Your task to perform on an android device: Is it going to rain today? Image 0: 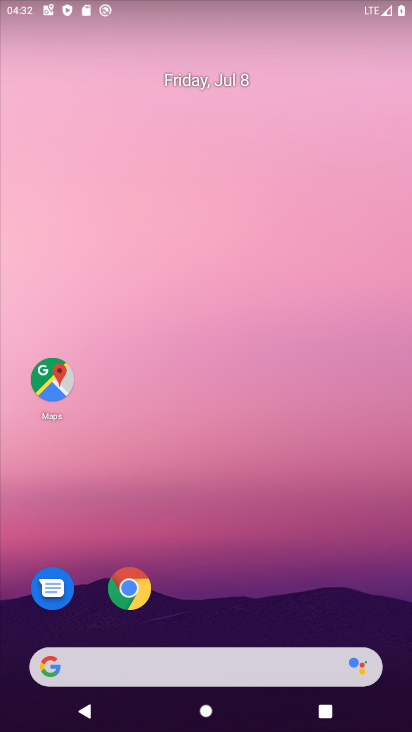
Step 0: drag from (213, 582) to (233, 202)
Your task to perform on an android device: Is it going to rain today? Image 1: 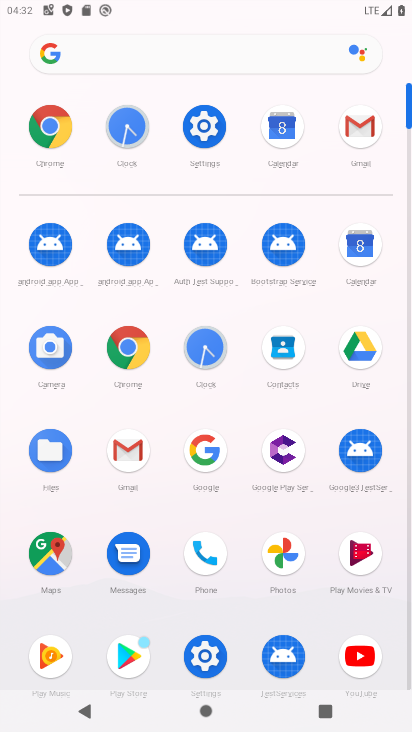
Step 1: click (207, 451)
Your task to perform on an android device: Is it going to rain today? Image 2: 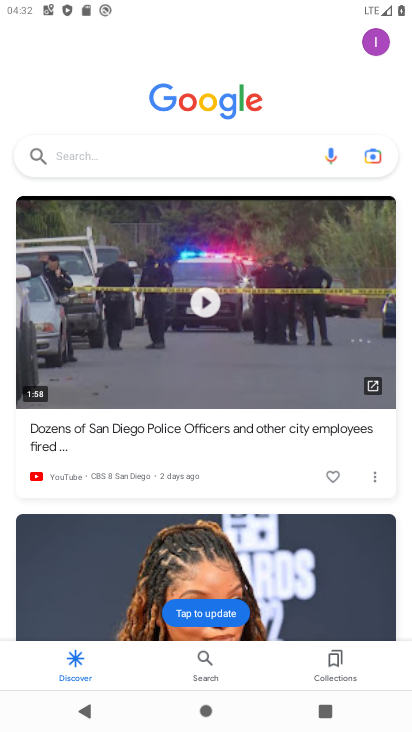
Step 2: click (214, 151)
Your task to perform on an android device: Is it going to rain today? Image 3: 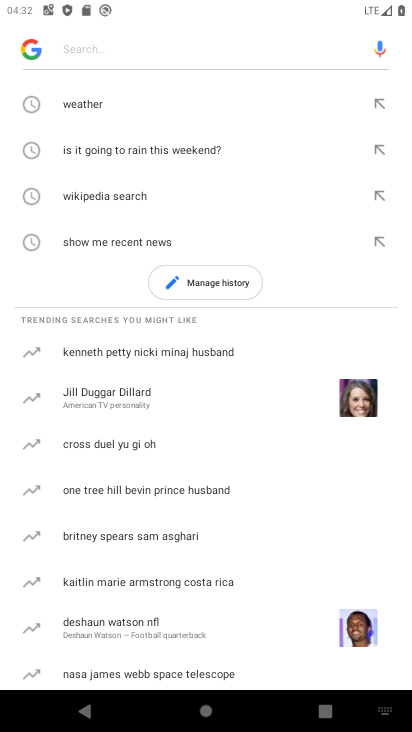
Step 3: click (85, 103)
Your task to perform on an android device: Is it going to rain today? Image 4: 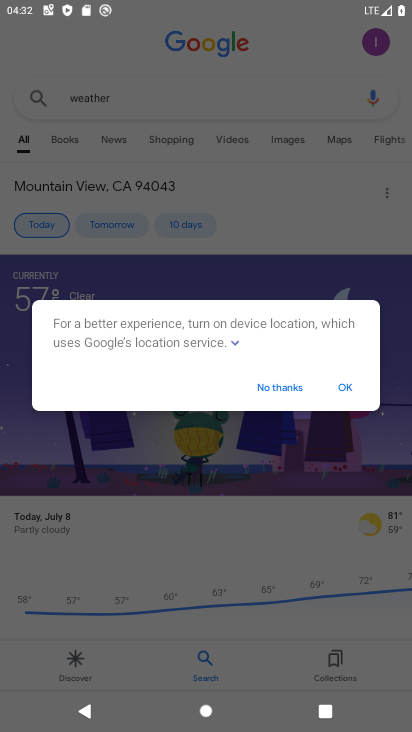
Step 4: click (287, 384)
Your task to perform on an android device: Is it going to rain today? Image 5: 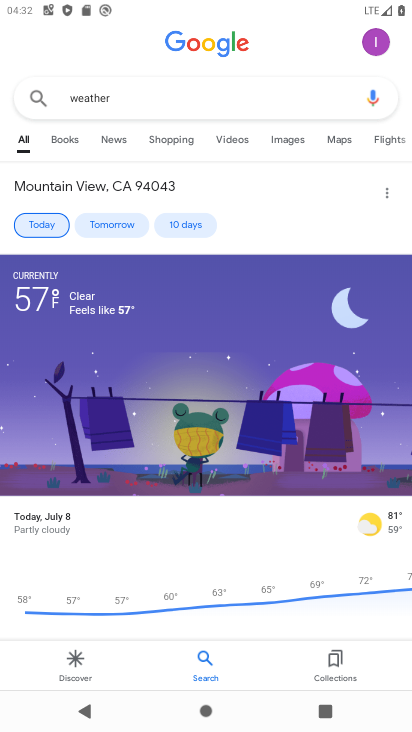
Step 5: task complete